Your task to perform on an android device: Open privacy settings Image 0: 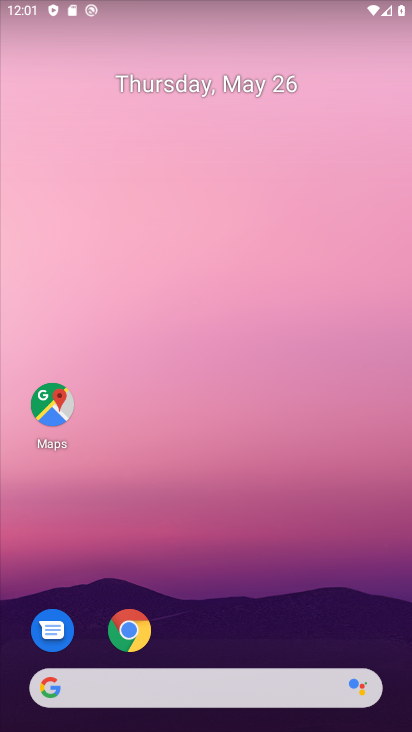
Step 0: click (113, 624)
Your task to perform on an android device: Open privacy settings Image 1: 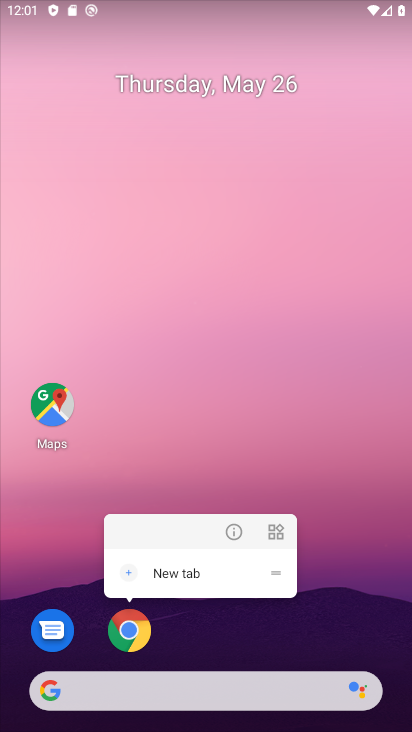
Step 1: click (134, 632)
Your task to perform on an android device: Open privacy settings Image 2: 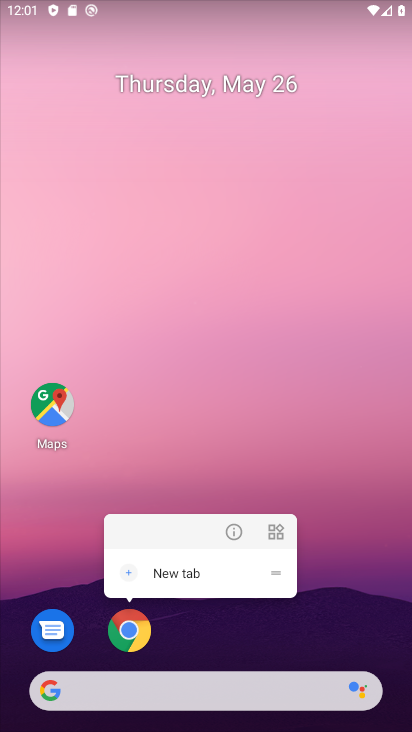
Step 2: click (137, 642)
Your task to perform on an android device: Open privacy settings Image 3: 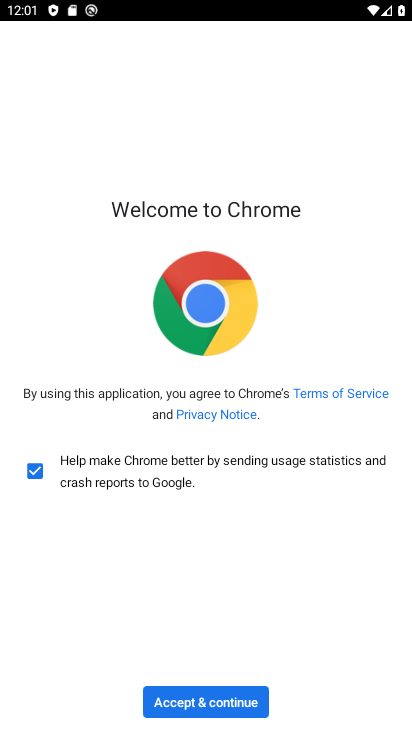
Step 3: click (244, 705)
Your task to perform on an android device: Open privacy settings Image 4: 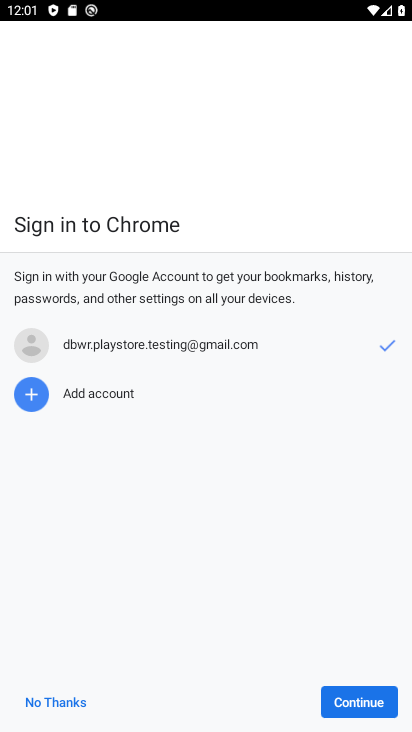
Step 4: click (358, 692)
Your task to perform on an android device: Open privacy settings Image 5: 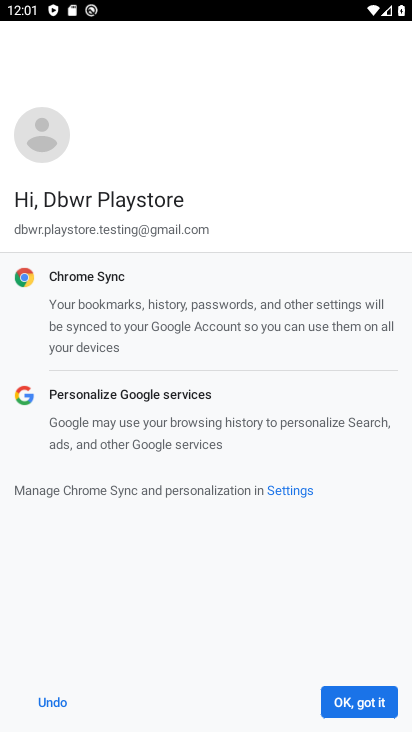
Step 5: click (372, 694)
Your task to perform on an android device: Open privacy settings Image 6: 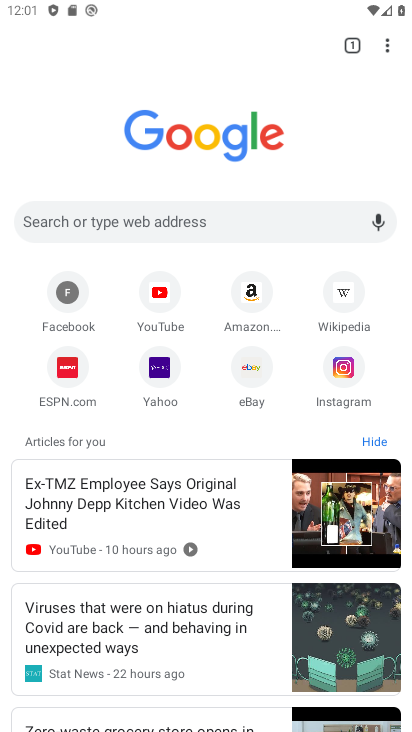
Step 6: drag from (380, 44) to (254, 383)
Your task to perform on an android device: Open privacy settings Image 7: 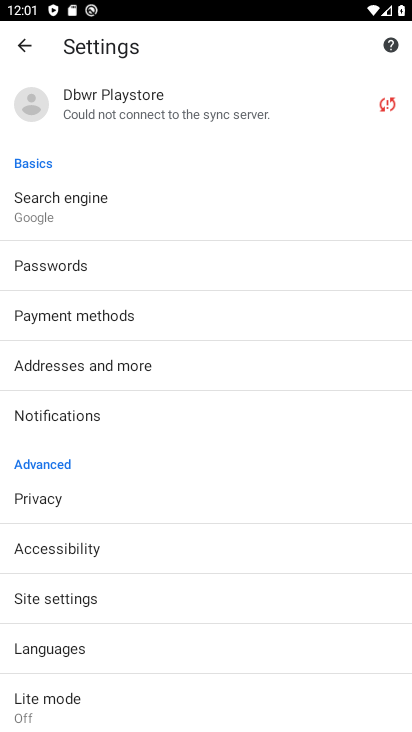
Step 7: click (107, 497)
Your task to perform on an android device: Open privacy settings Image 8: 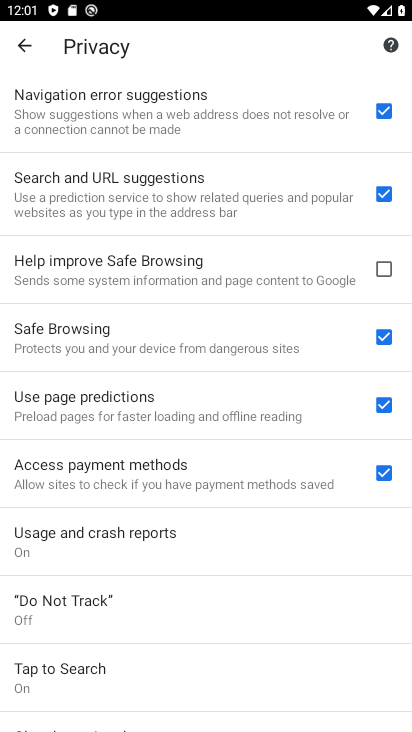
Step 8: task complete